Your task to perform on an android device: Open Chrome and go to settings Image 0: 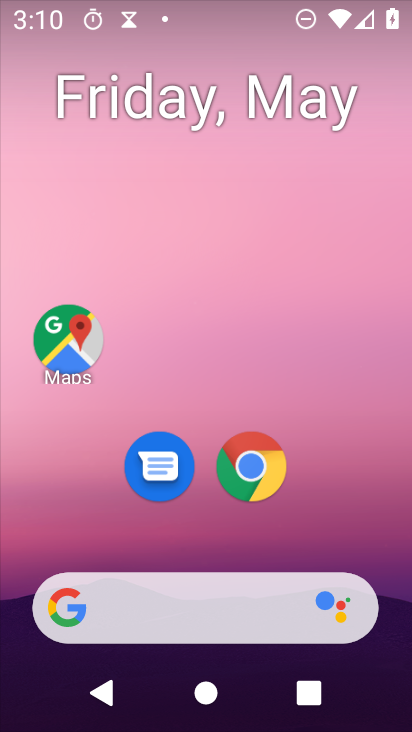
Step 0: drag from (346, 533) to (381, 47)
Your task to perform on an android device: Open Chrome and go to settings Image 1: 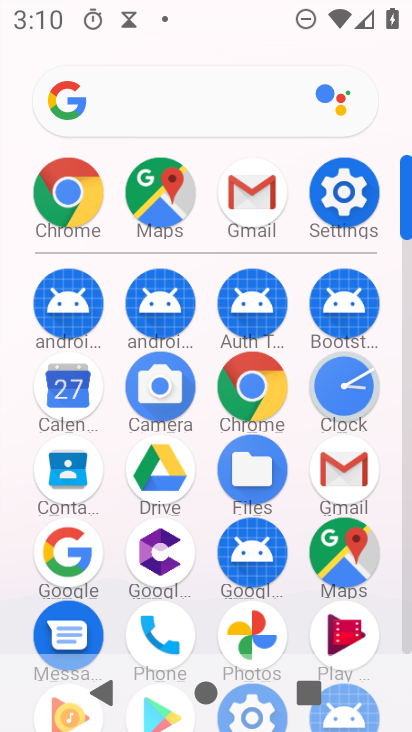
Step 1: click (70, 196)
Your task to perform on an android device: Open Chrome and go to settings Image 2: 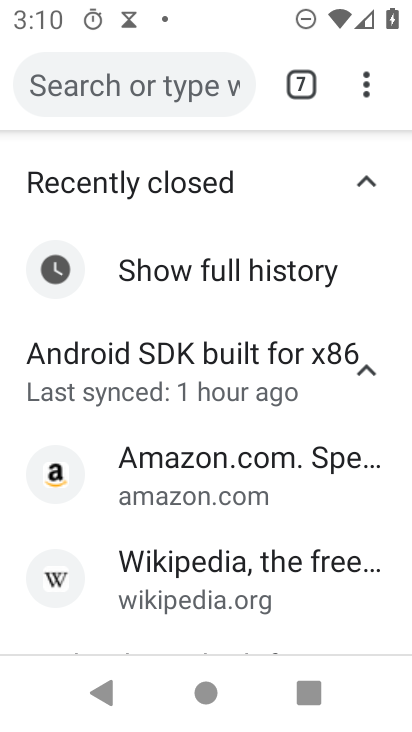
Step 2: task complete